Your task to perform on an android device: What's a good restaurant in Chicago? Image 0: 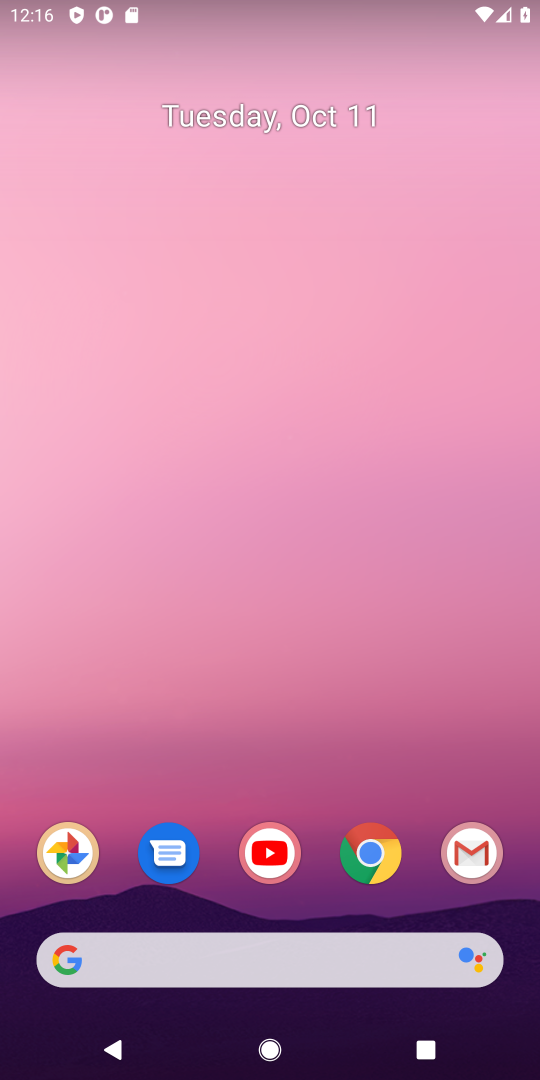
Step 0: drag from (278, 757) to (289, 35)
Your task to perform on an android device: What's a good restaurant in Chicago? Image 1: 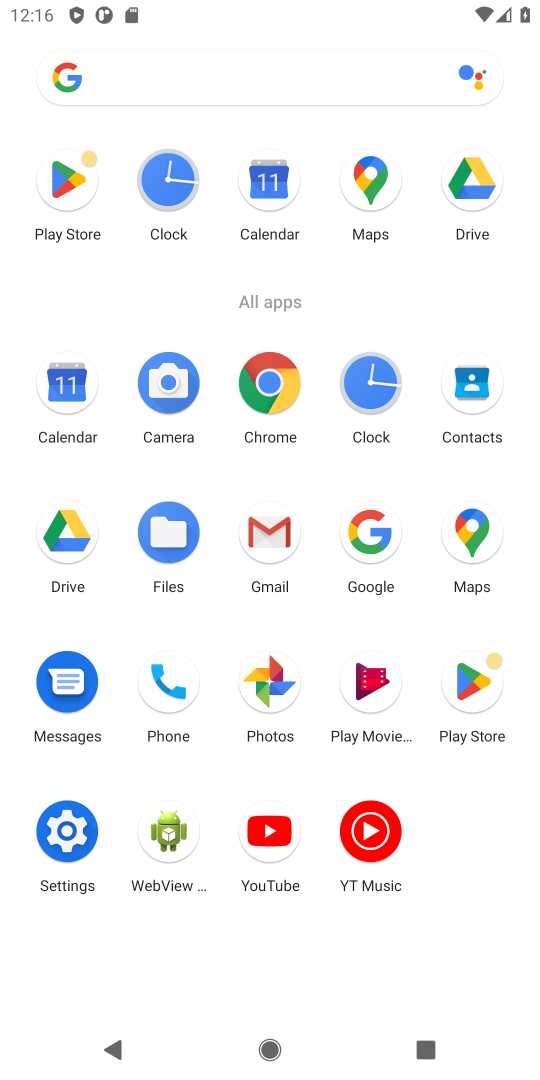
Step 1: click (261, 393)
Your task to perform on an android device: What's a good restaurant in Chicago? Image 2: 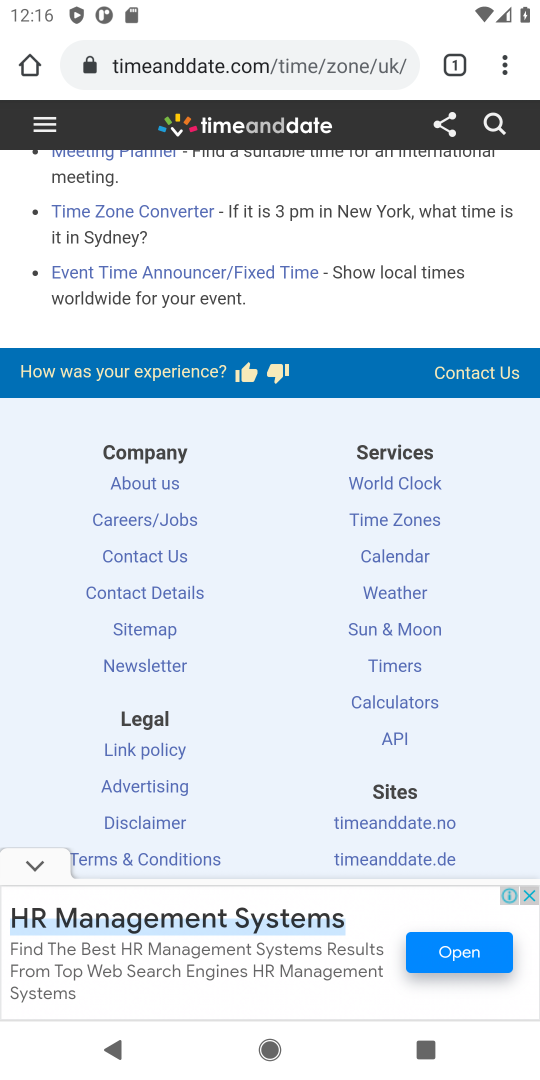
Step 2: click (252, 70)
Your task to perform on an android device: What's a good restaurant in Chicago? Image 3: 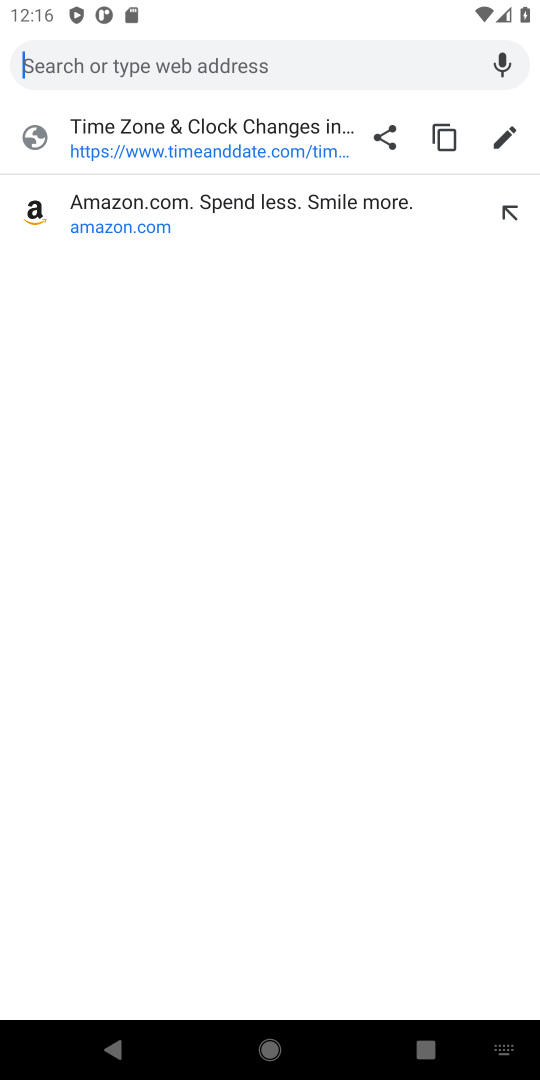
Step 3: type "What's a good restaurant in Chicago?"
Your task to perform on an android device: What's a good restaurant in Chicago? Image 4: 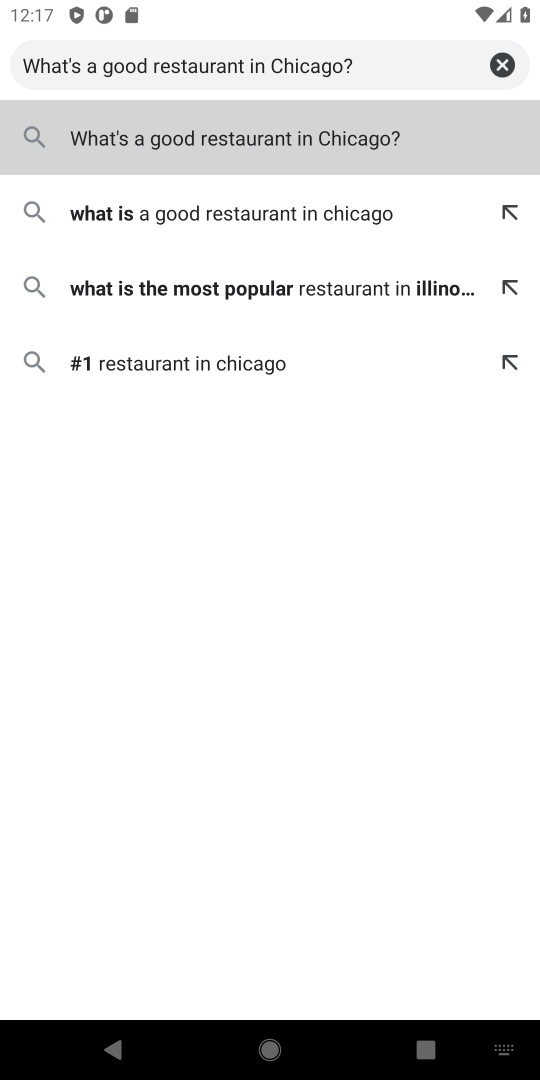
Step 4: type ""
Your task to perform on an android device: What's a good restaurant in Chicago? Image 5: 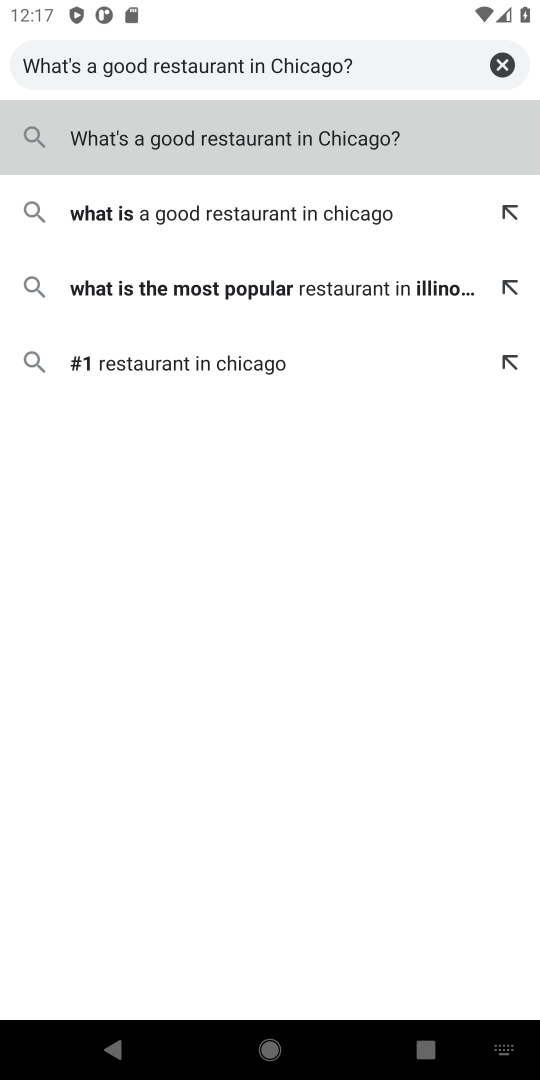
Step 5: click (235, 152)
Your task to perform on an android device: What's a good restaurant in Chicago? Image 6: 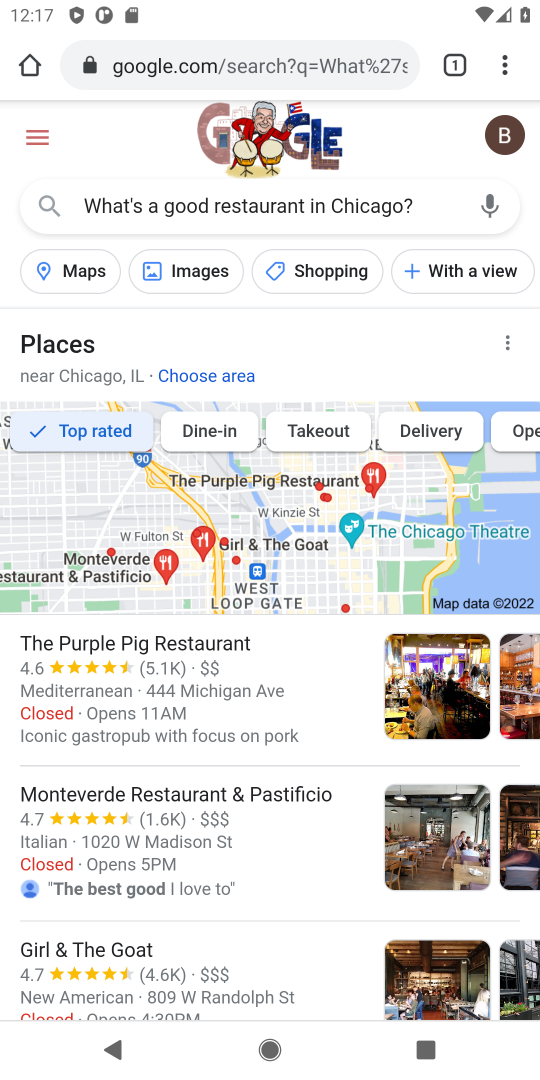
Step 6: click (156, 652)
Your task to perform on an android device: What's a good restaurant in Chicago? Image 7: 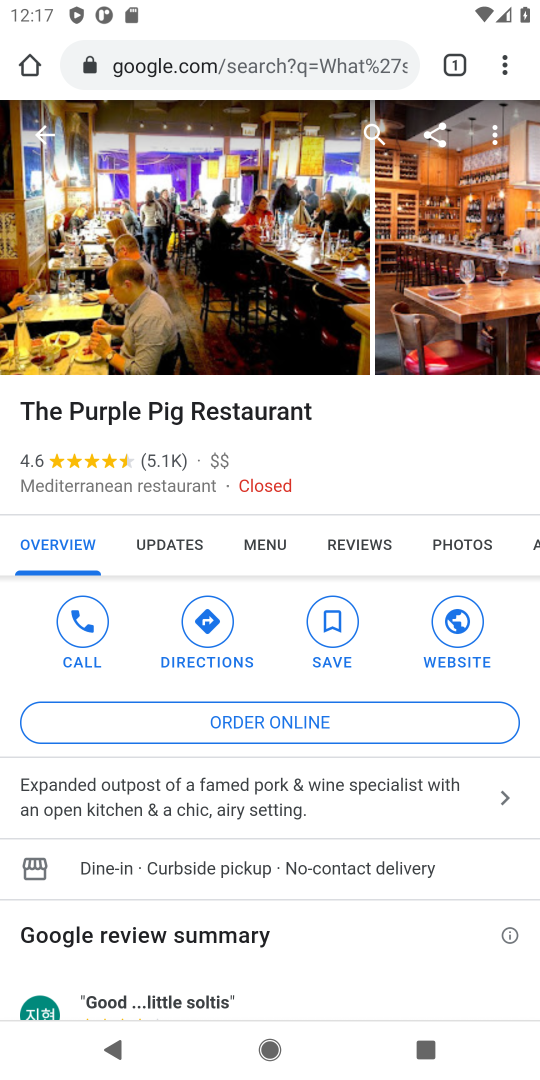
Step 7: drag from (342, 869) to (384, 904)
Your task to perform on an android device: What's a good restaurant in Chicago? Image 8: 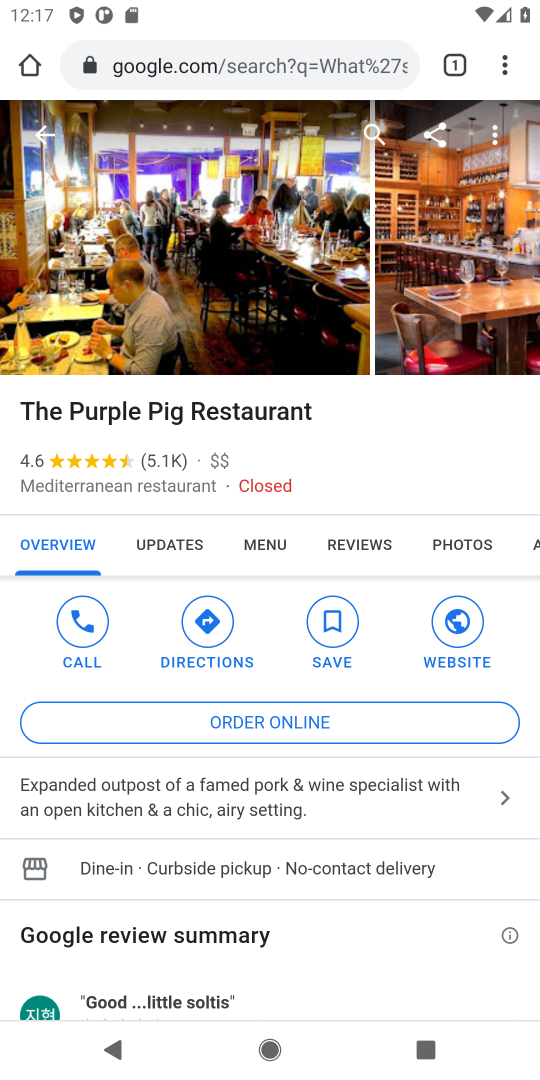
Step 8: click (295, 287)
Your task to perform on an android device: What's a good restaurant in Chicago? Image 9: 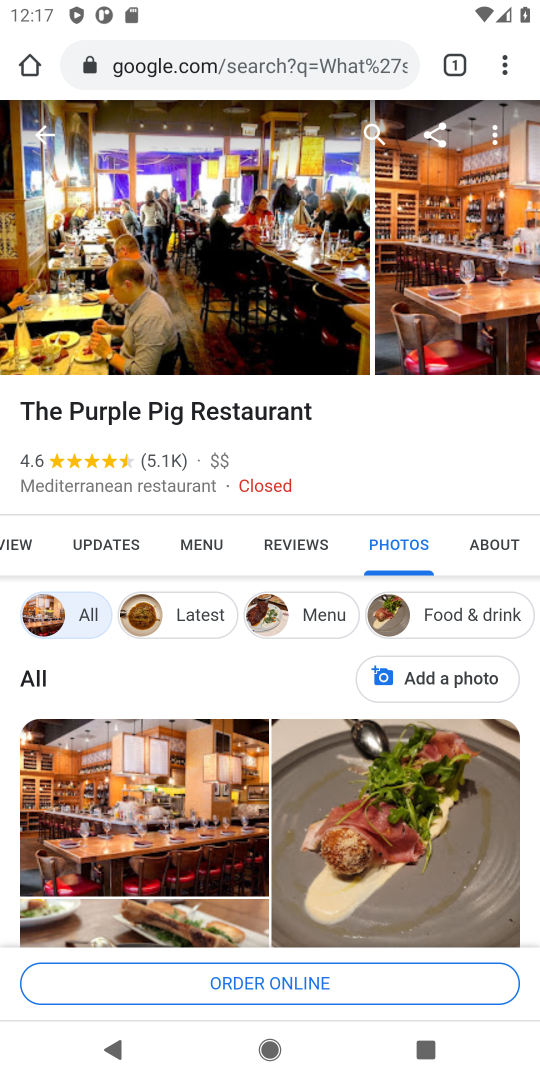
Step 9: click (175, 304)
Your task to perform on an android device: What's a good restaurant in Chicago? Image 10: 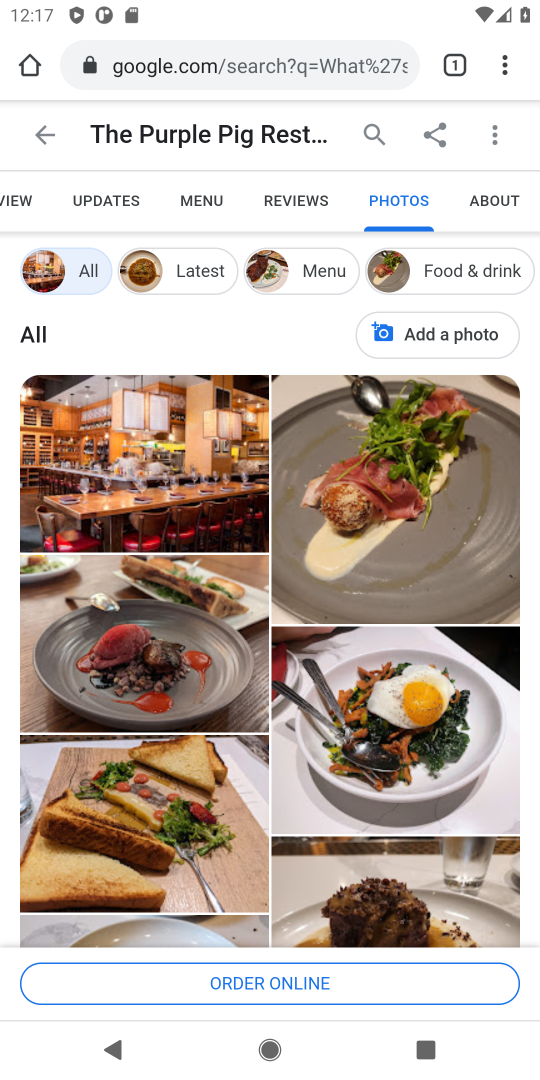
Step 10: click (181, 432)
Your task to perform on an android device: What's a good restaurant in Chicago? Image 11: 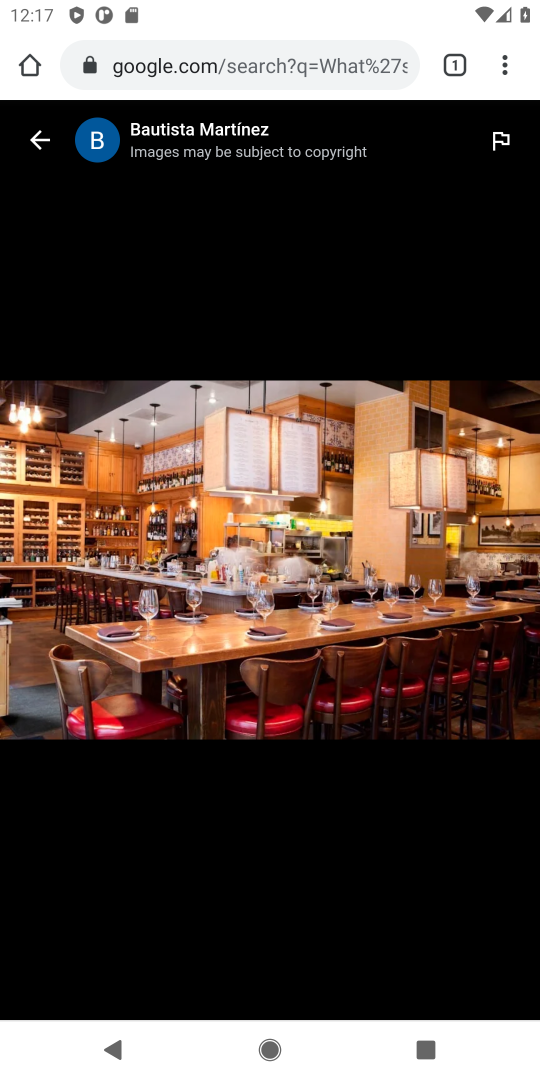
Step 11: click (207, 584)
Your task to perform on an android device: What's a good restaurant in Chicago? Image 12: 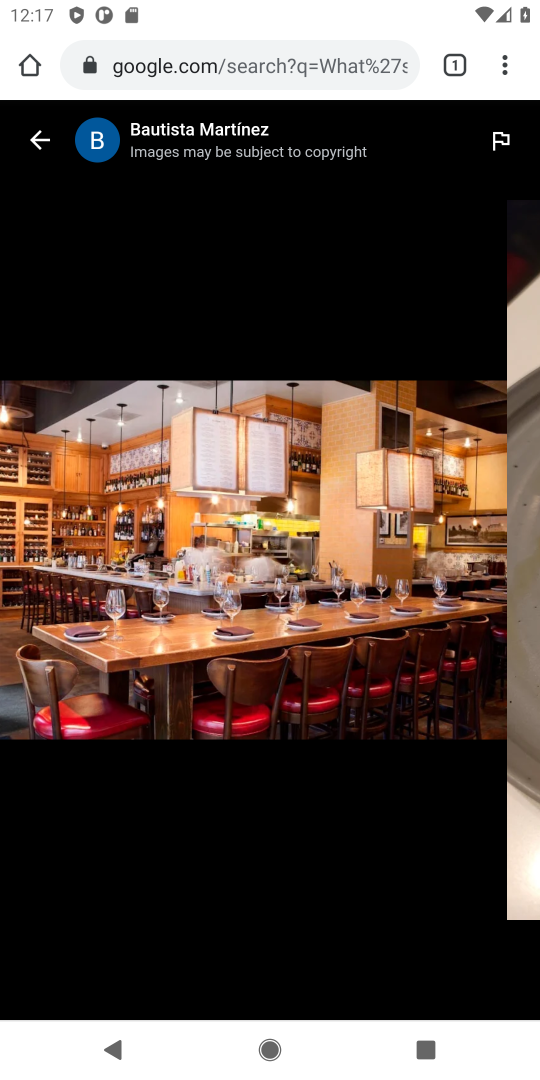
Step 12: drag from (364, 584) to (19, 583)
Your task to perform on an android device: What's a good restaurant in Chicago? Image 13: 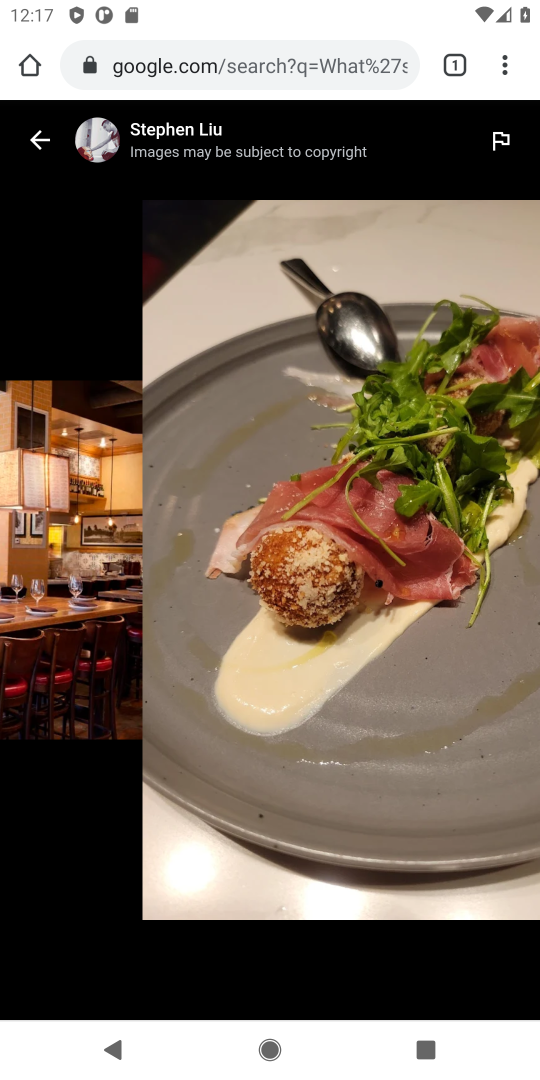
Step 13: drag from (496, 608) to (1, 640)
Your task to perform on an android device: What's a good restaurant in Chicago? Image 14: 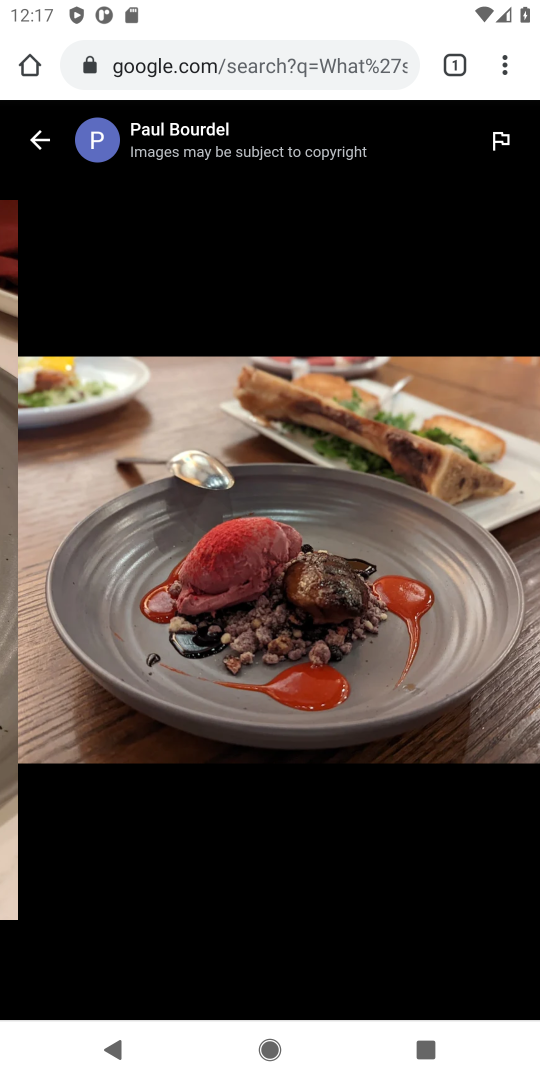
Step 14: drag from (511, 657) to (9, 651)
Your task to perform on an android device: What's a good restaurant in Chicago? Image 15: 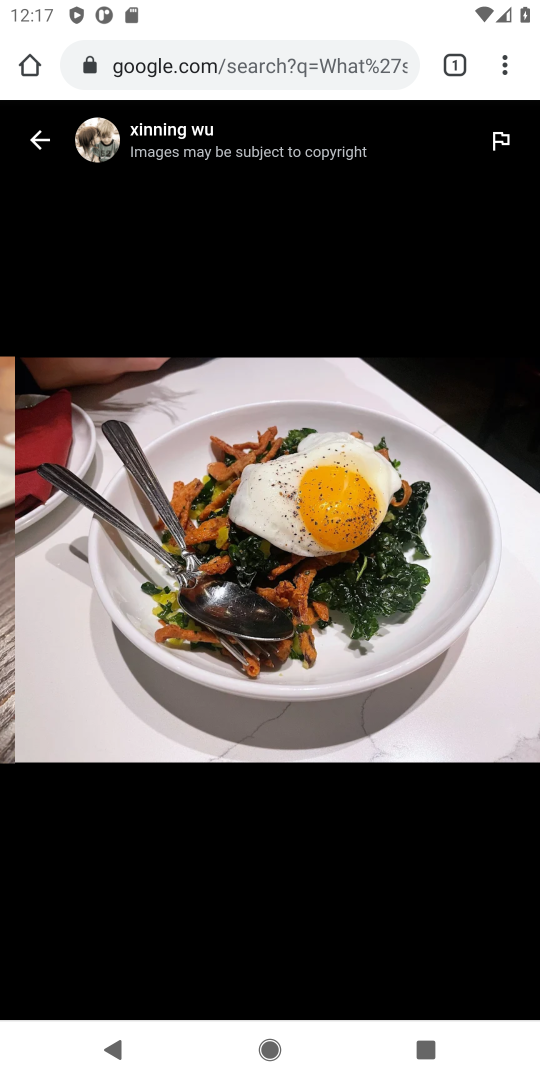
Step 15: drag from (499, 617) to (10, 637)
Your task to perform on an android device: What's a good restaurant in Chicago? Image 16: 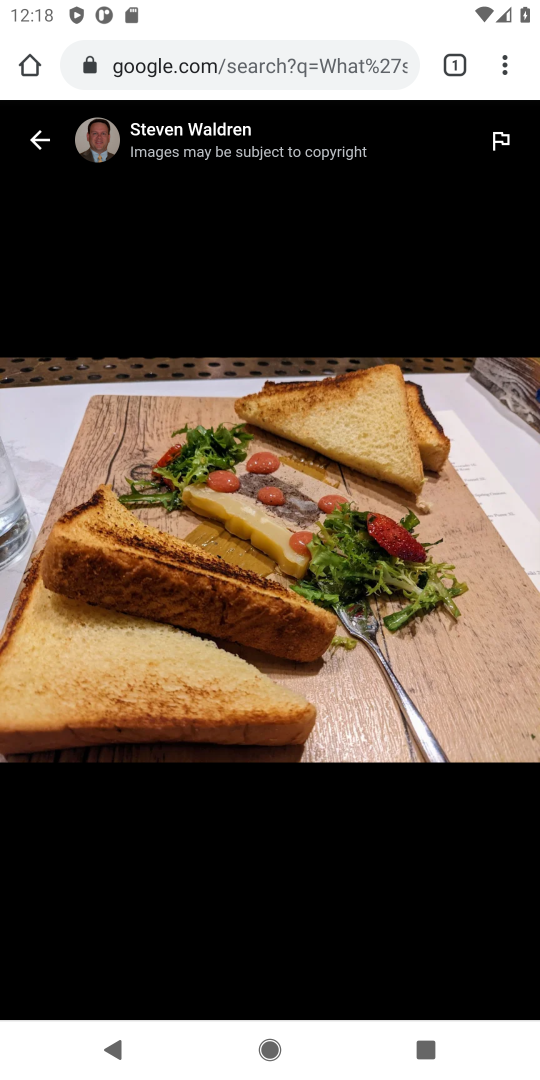
Step 16: drag from (511, 614) to (46, 623)
Your task to perform on an android device: What's a good restaurant in Chicago? Image 17: 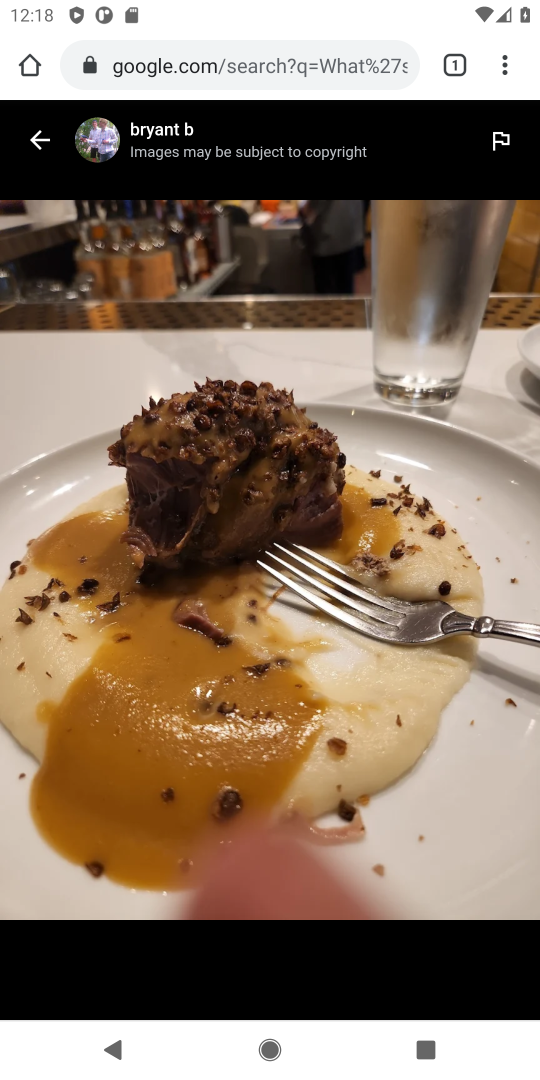
Step 17: drag from (514, 609) to (48, 604)
Your task to perform on an android device: What's a good restaurant in Chicago? Image 18: 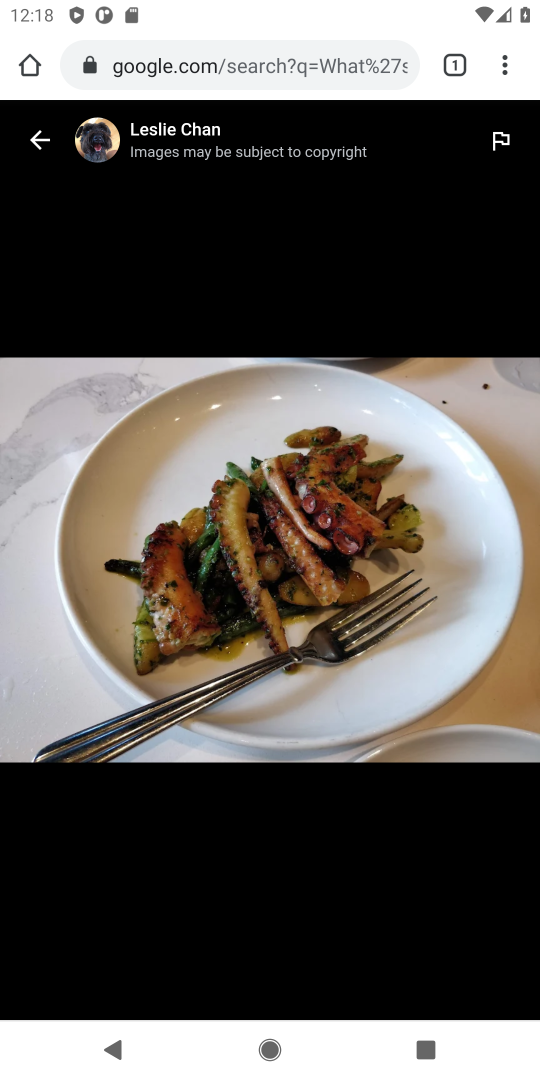
Step 18: drag from (486, 608) to (16, 464)
Your task to perform on an android device: What's a good restaurant in Chicago? Image 19: 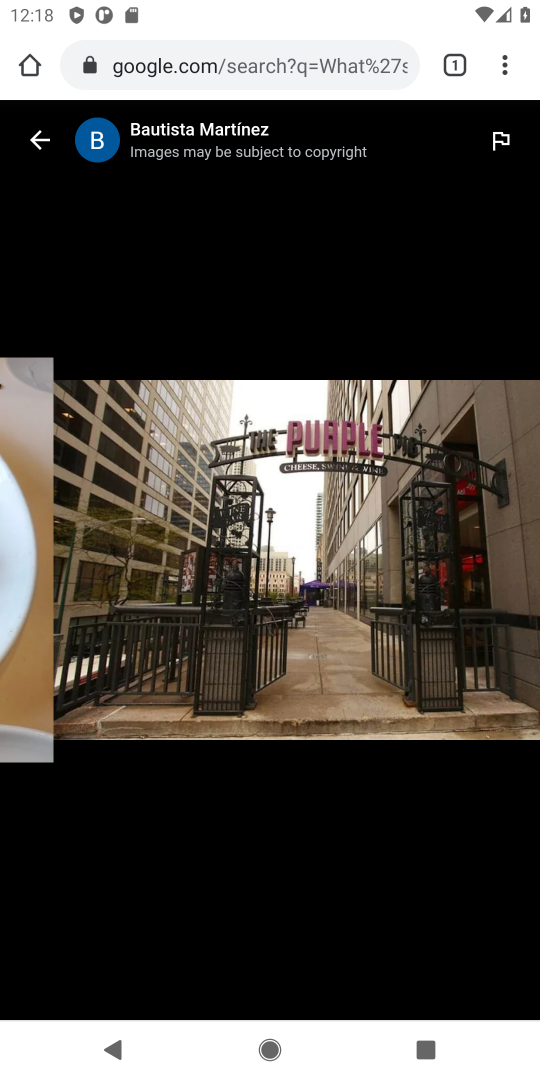
Step 19: click (41, 134)
Your task to perform on an android device: What's a good restaurant in Chicago? Image 20: 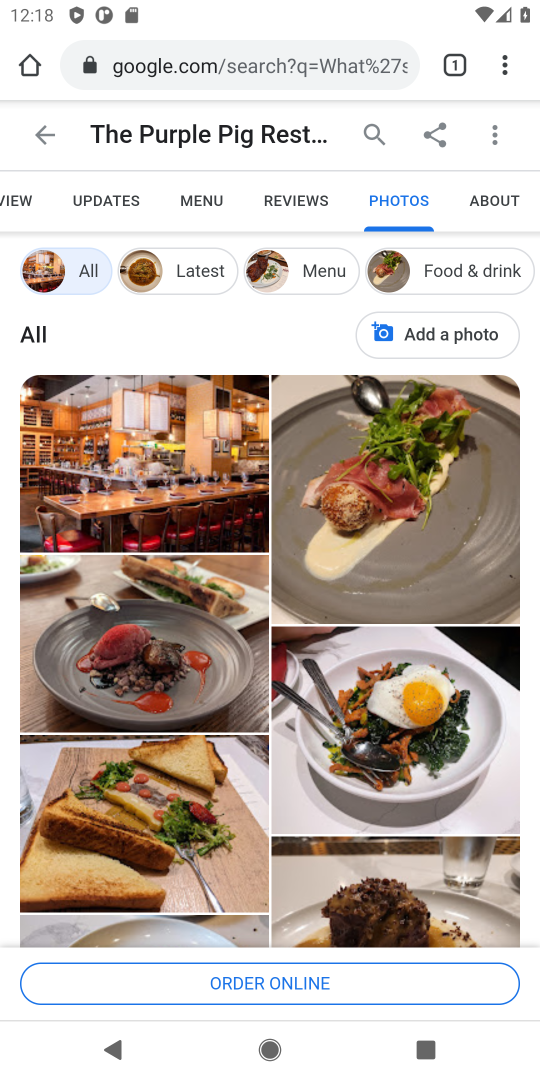
Step 20: click (38, 137)
Your task to perform on an android device: What's a good restaurant in Chicago? Image 21: 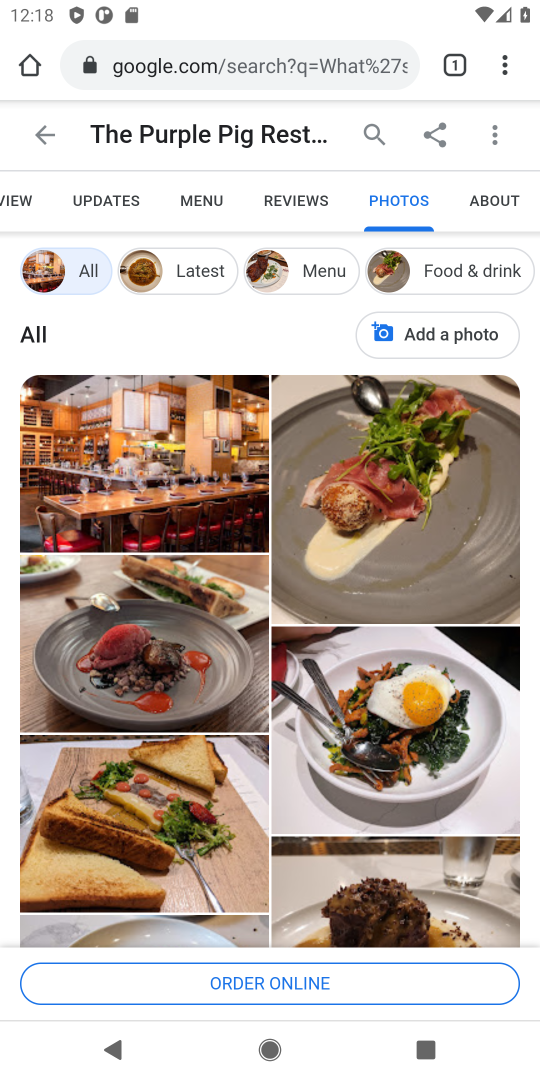
Step 21: click (56, 139)
Your task to perform on an android device: What's a good restaurant in Chicago? Image 22: 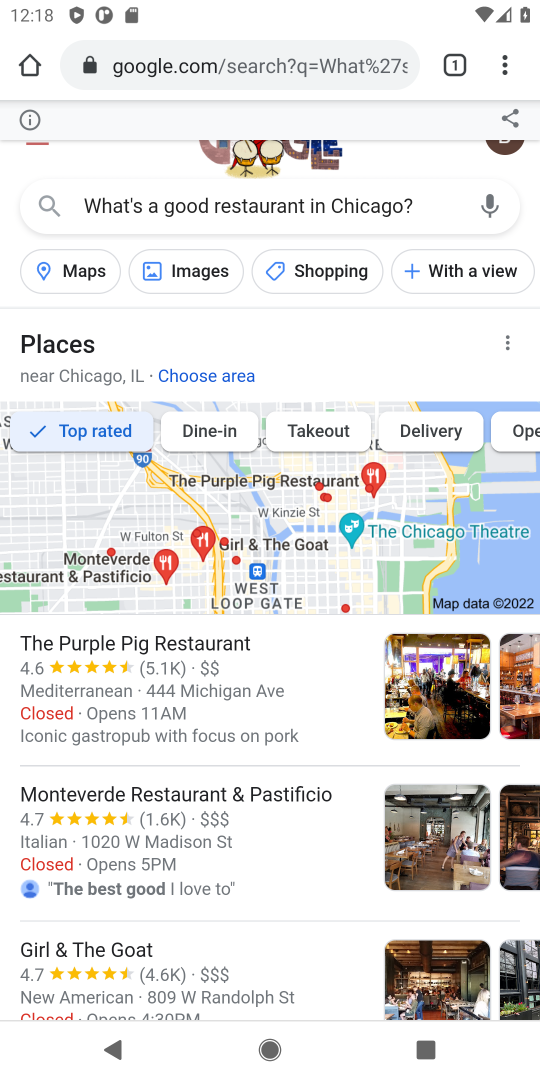
Step 22: drag from (206, 791) to (237, 175)
Your task to perform on an android device: What's a good restaurant in Chicago? Image 23: 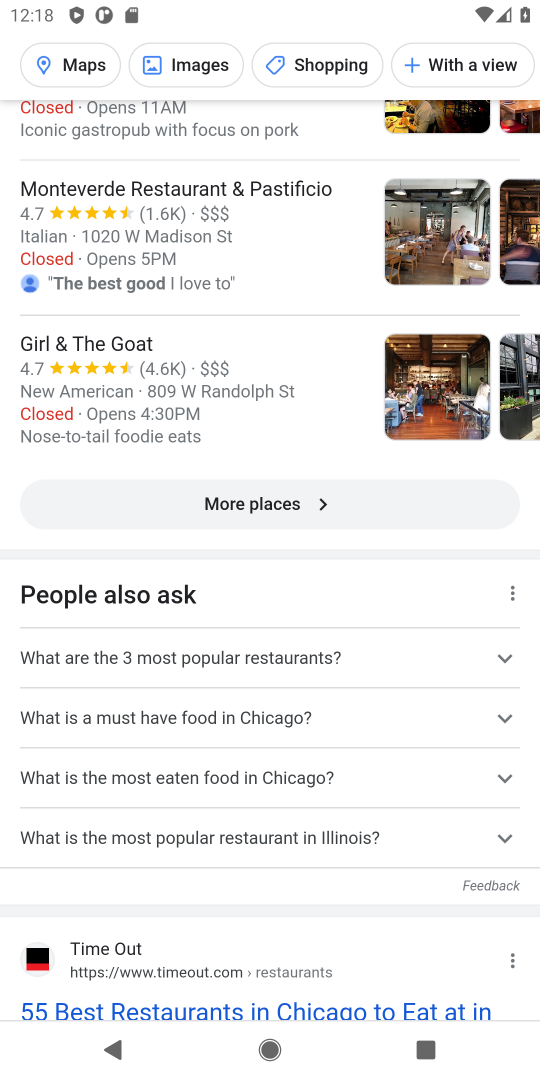
Step 23: click (136, 354)
Your task to perform on an android device: What's a good restaurant in Chicago? Image 24: 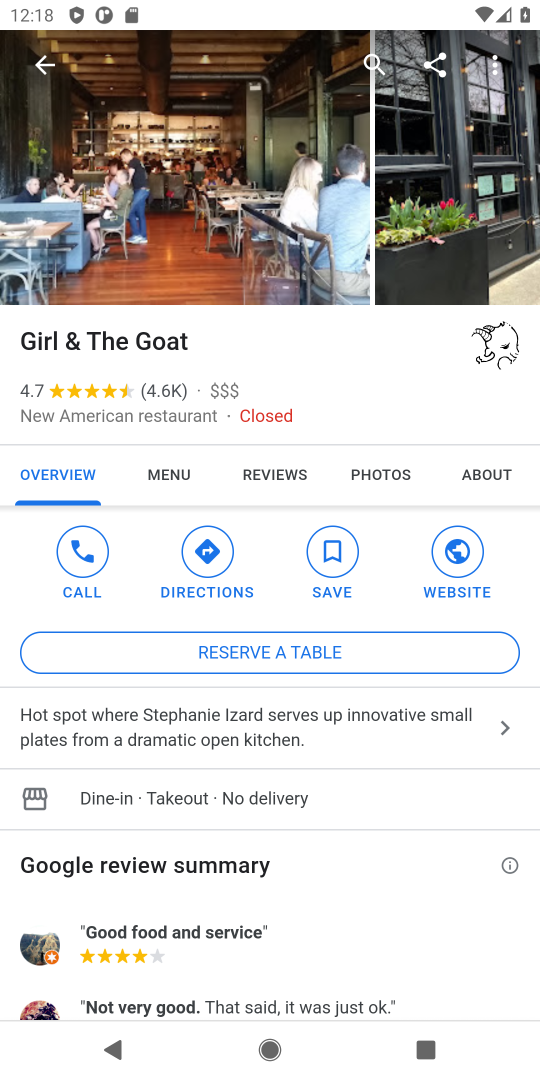
Step 24: drag from (274, 831) to (252, 371)
Your task to perform on an android device: What's a good restaurant in Chicago? Image 25: 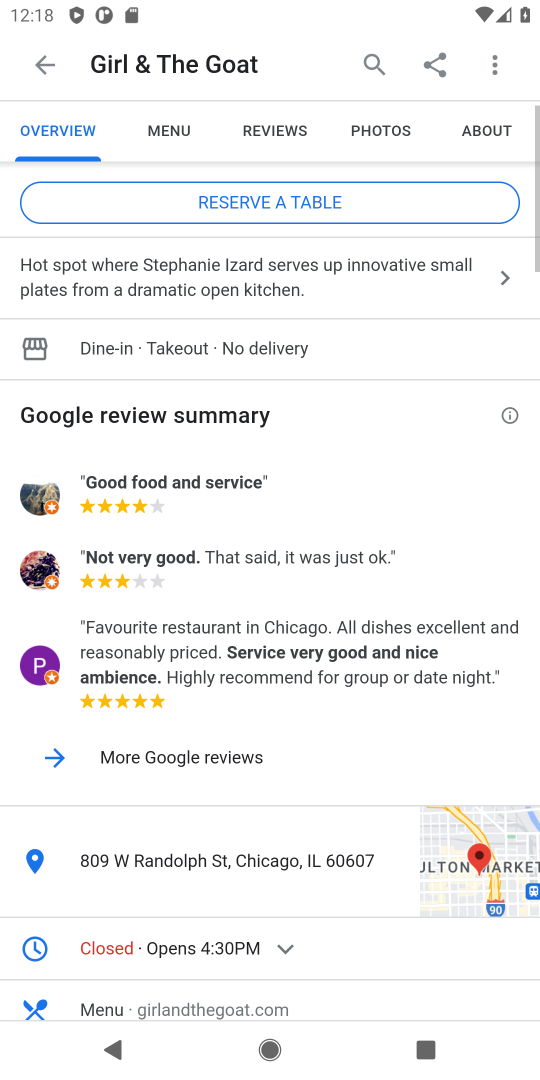
Step 25: drag from (295, 803) to (288, 271)
Your task to perform on an android device: What's a good restaurant in Chicago? Image 26: 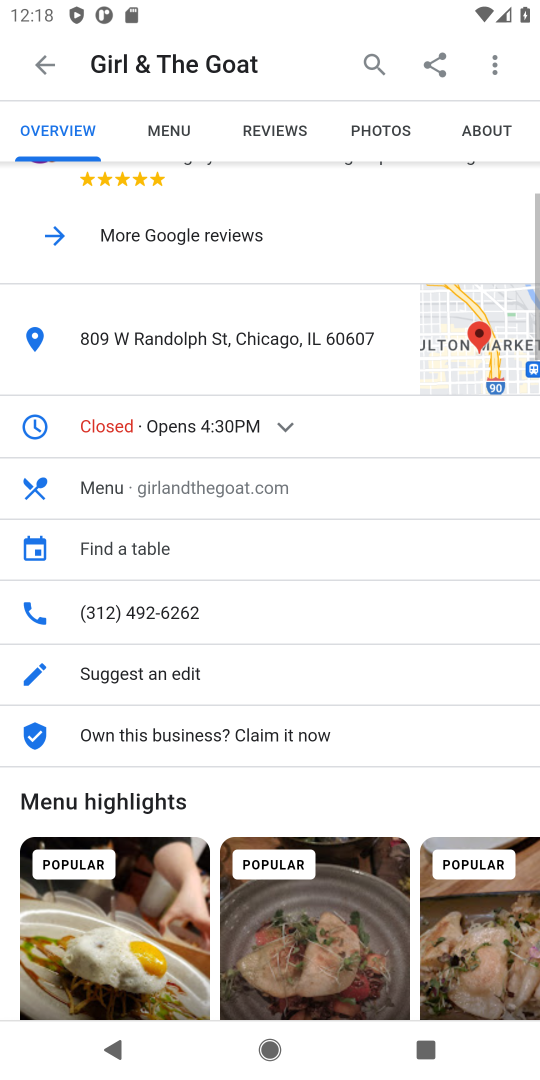
Step 26: drag from (343, 815) to (333, 364)
Your task to perform on an android device: What's a good restaurant in Chicago? Image 27: 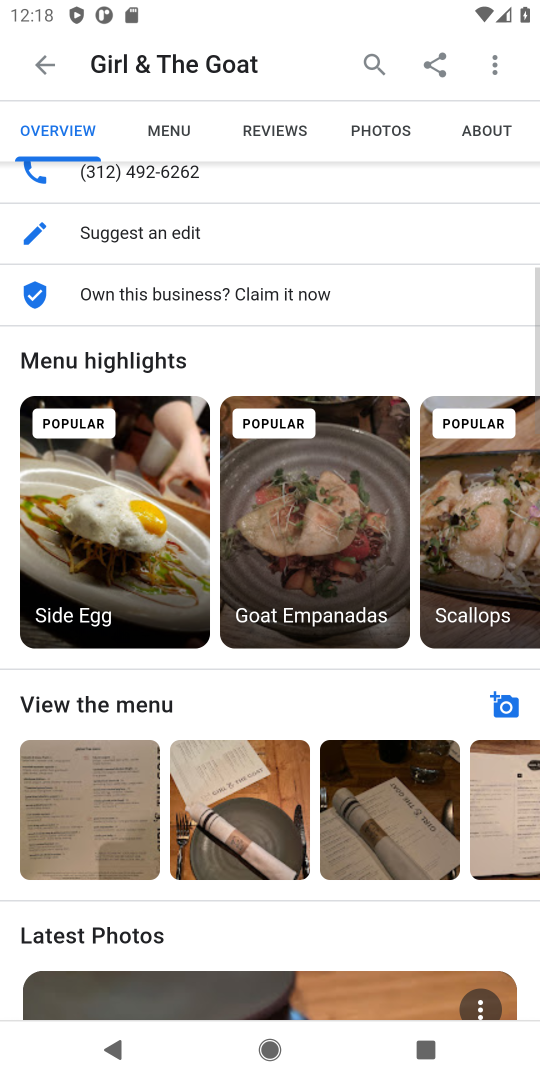
Step 27: drag from (390, 698) to (345, 239)
Your task to perform on an android device: What's a good restaurant in Chicago? Image 28: 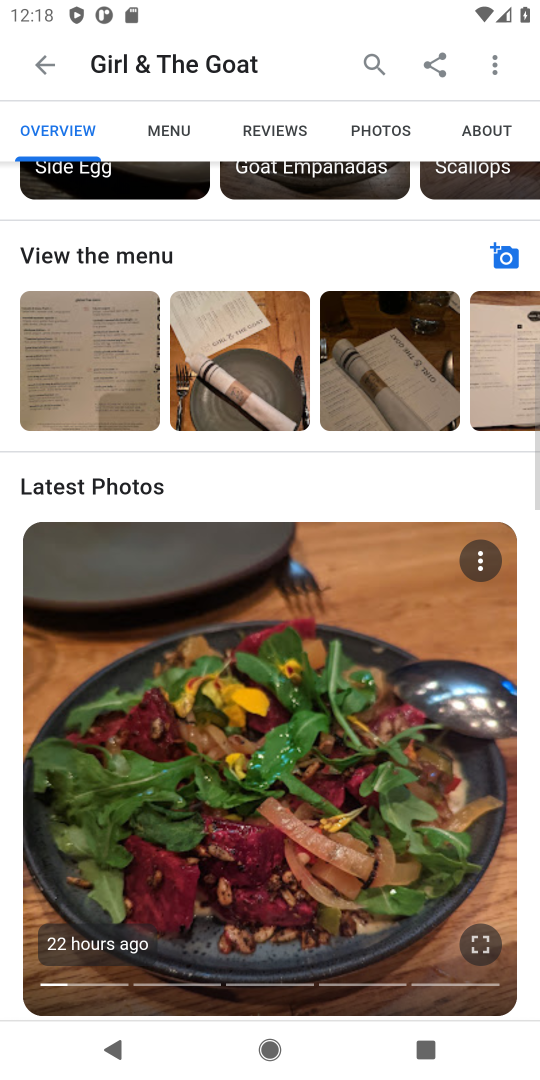
Step 28: drag from (367, 479) to (355, 124)
Your task to perform on an android device: What's a good restaurant in Chicago? Image 29: 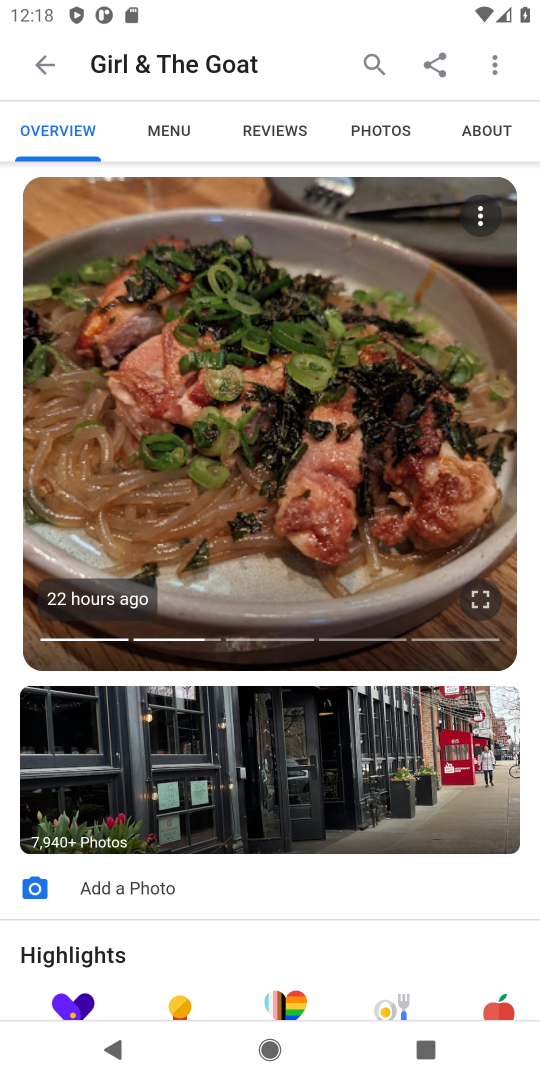
Step 29: drag from (387, 456) to (189, 484)
Your task to perform on an android device: What's a good restaurant in Chicago? Image 30: 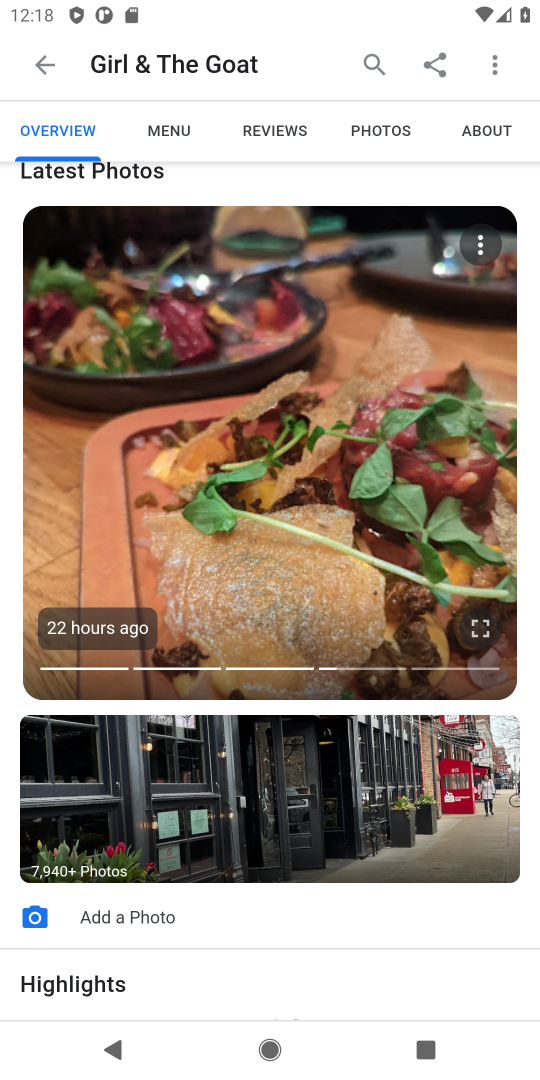
Step 30: drag from (381, 503) to (116, 485)
Your task to perform on an android device: What's a good restaurant in Chicago? Image 31: 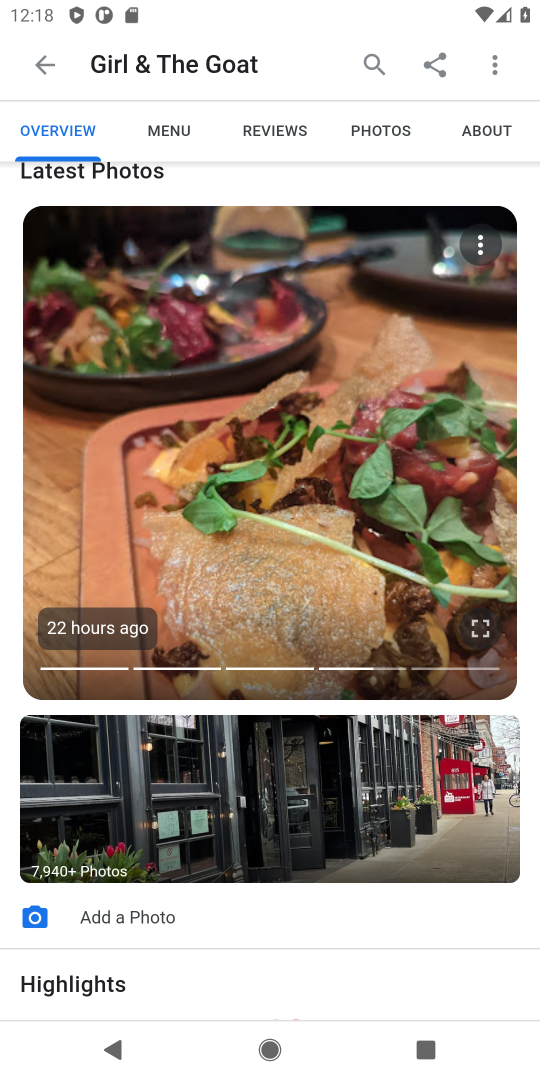
Step 31: drag from (370, 520) to (263, 554)
Your task to perform on an android device: What's a good restaurant in Chicago? Image 32: 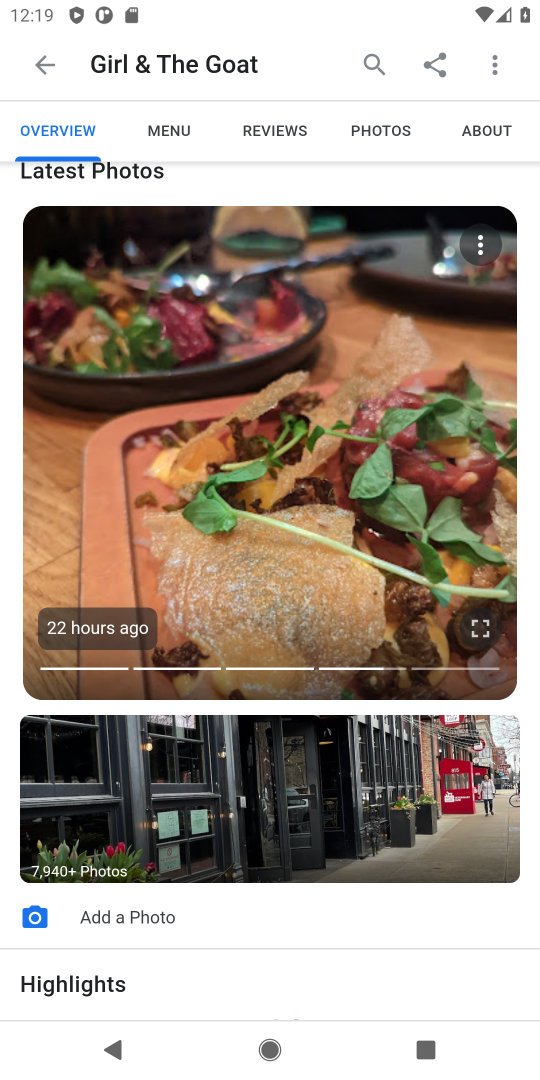
Step 32: click (189, 553)
Your task to perform on an android device: What's a good restaurant in Chicago? Image 33: 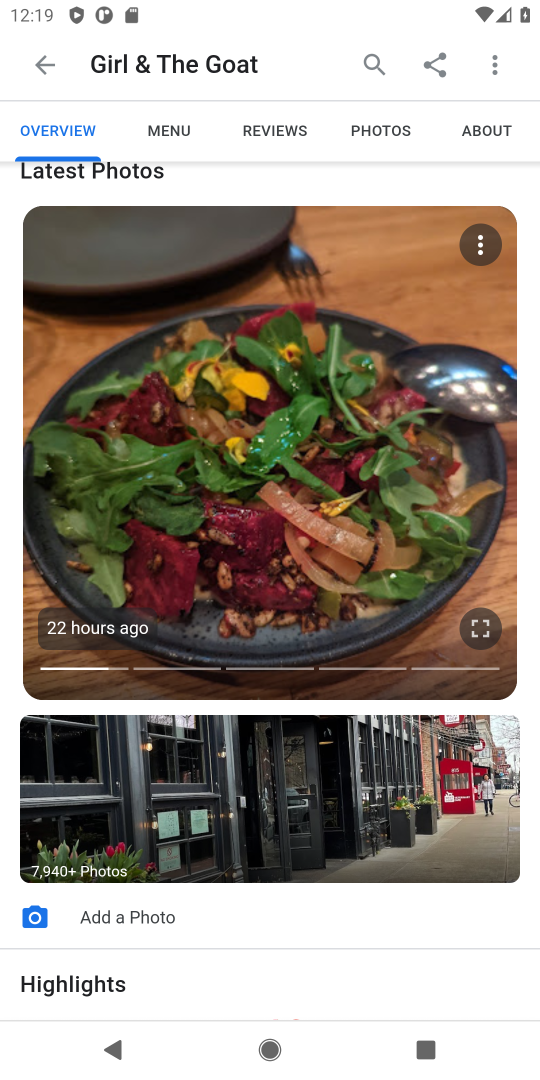
Step 33: drag from (301, 856) to (282, 346)
Your task to perform on an android device: What's a good restaurant in Chicago? Image 34: 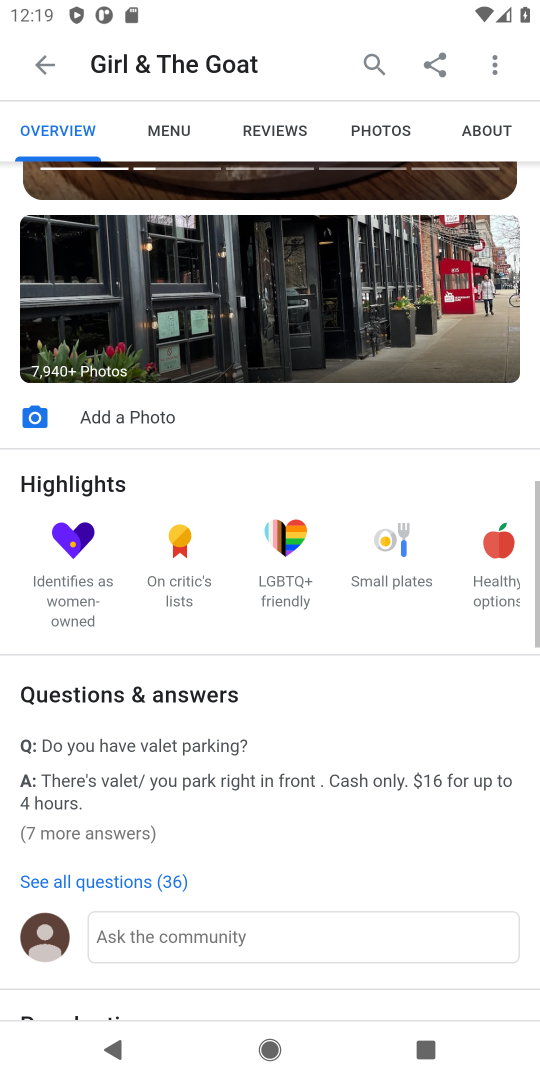
Step 34: drag from (339, 726) to (320, 202)
Your task to perform on an android device: What's a good restaurant in Chicago? Image 35: 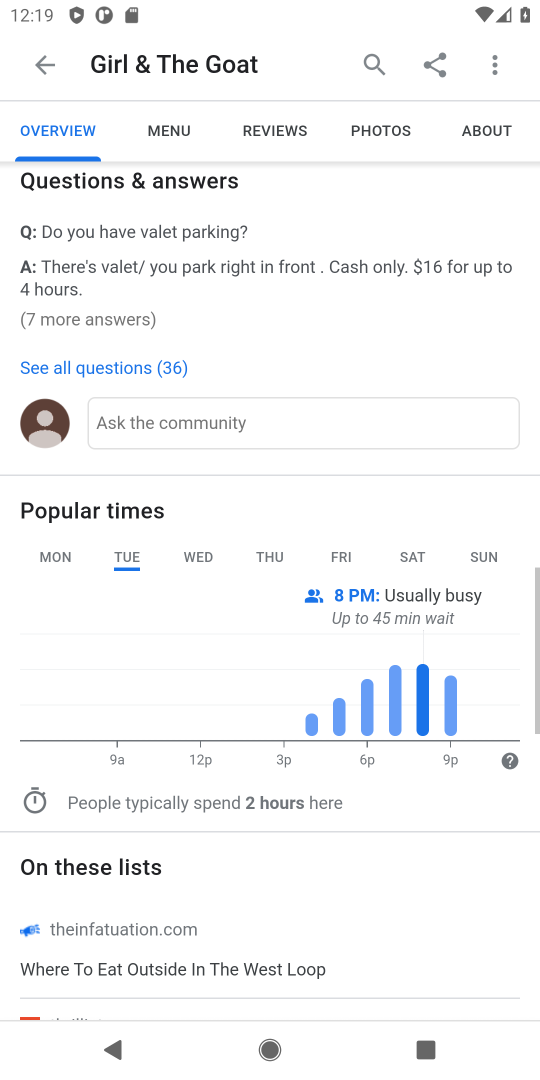
Step 35: drag from (363, 743) to (305, 301)
Your task to perform on an android device: What's a good restaurant in Chicago? Image 36: 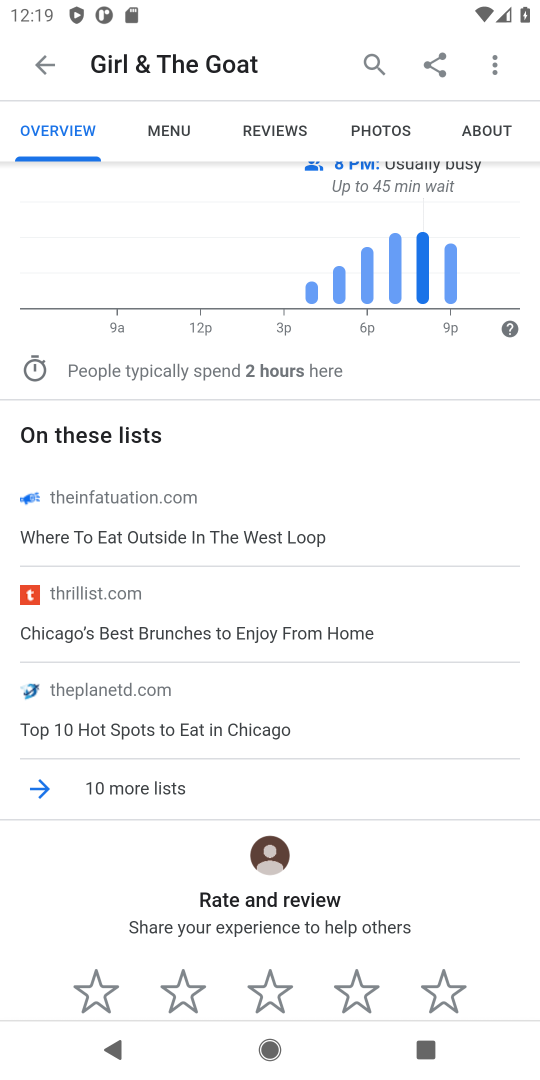
Step 36: drag from (262, 686) to (251, 326)
Your task to perform on an android device: What's a good restaurant in Chicago? Image 37: 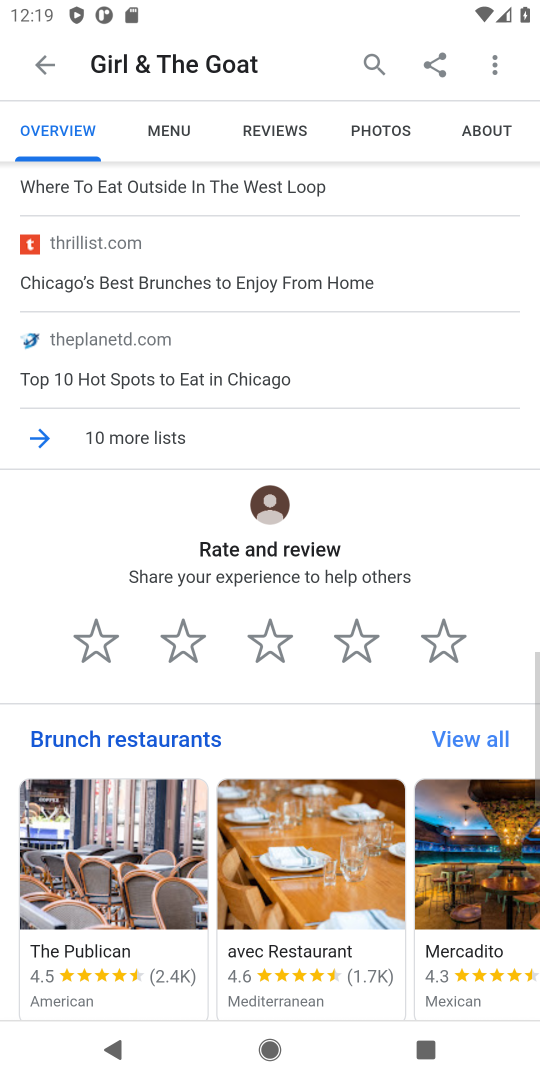
Step 37: drag from (321, 732) to (293, 277)
Your task to perform on an android device: What's a good restaurant in Chicago? Image 38: 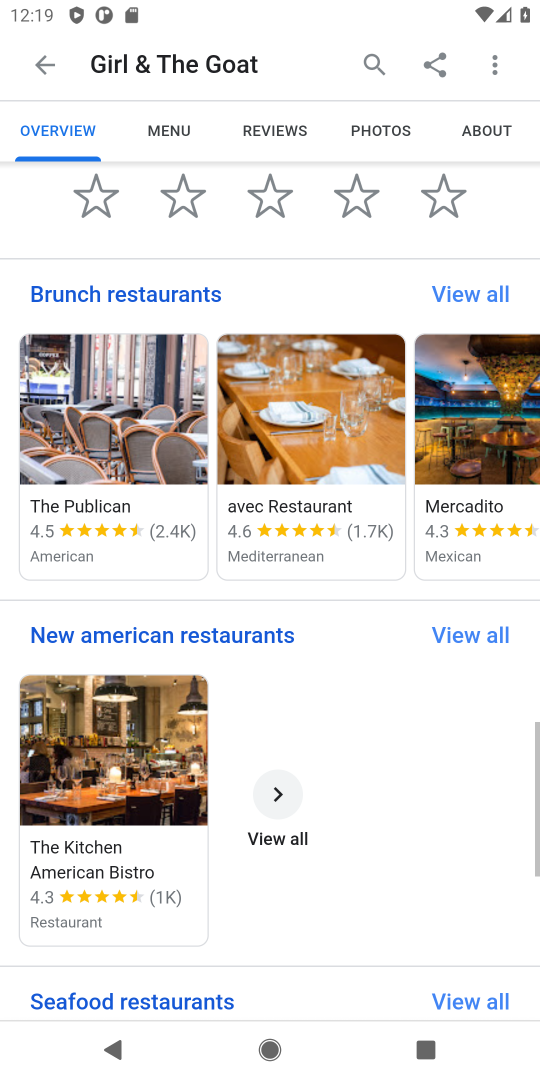
Step 38: drag from (232, 833) to (258, 305)
Your task to perform on an android device: What's a good restaurant in Chicago? Image 39: 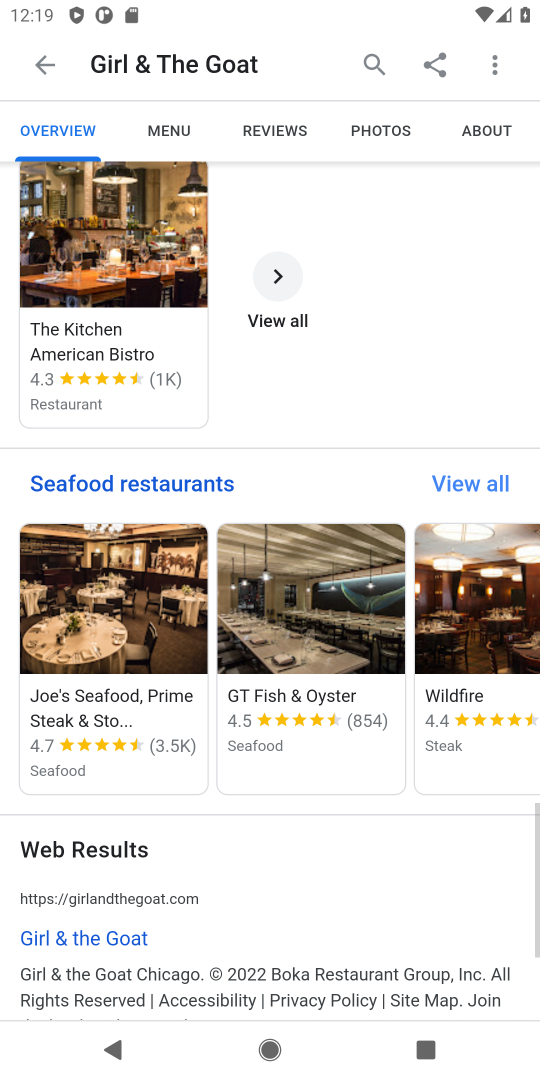
Step 39: drag from (344, 743) to (319, 248)
Your task to perform on an android device: What's a good restaurant in Chicago? Image 40: 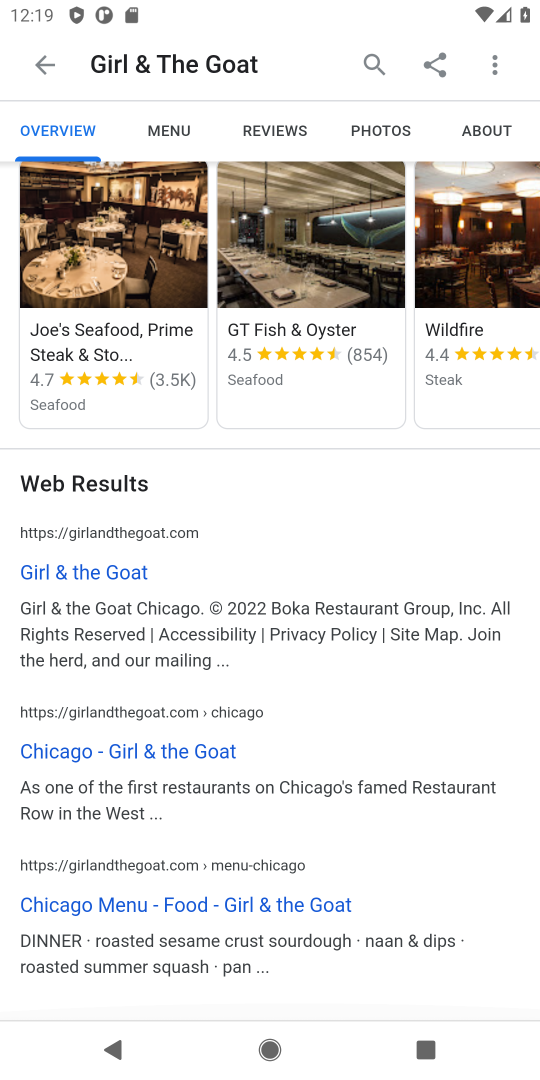
Step 40: drag from (281, 744) to (238, 895)
Your task to perform on an android device: What's a good restaurant in Chicago? Image 41: 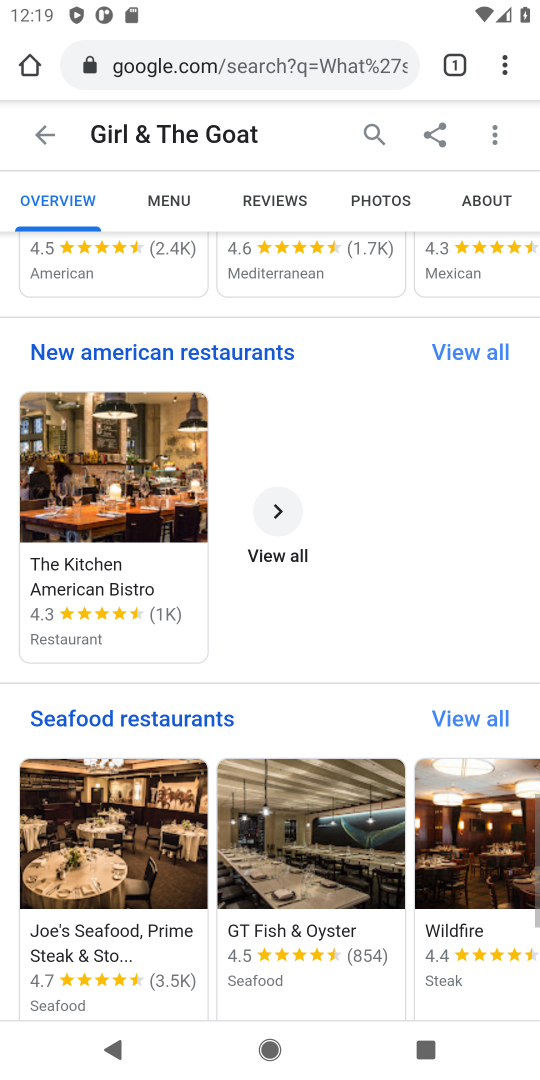
Step 41: drag from (259, 520) to (244, 829)
Your task to perform on an android device: What's a good restaurant in Chicago? Image 42: 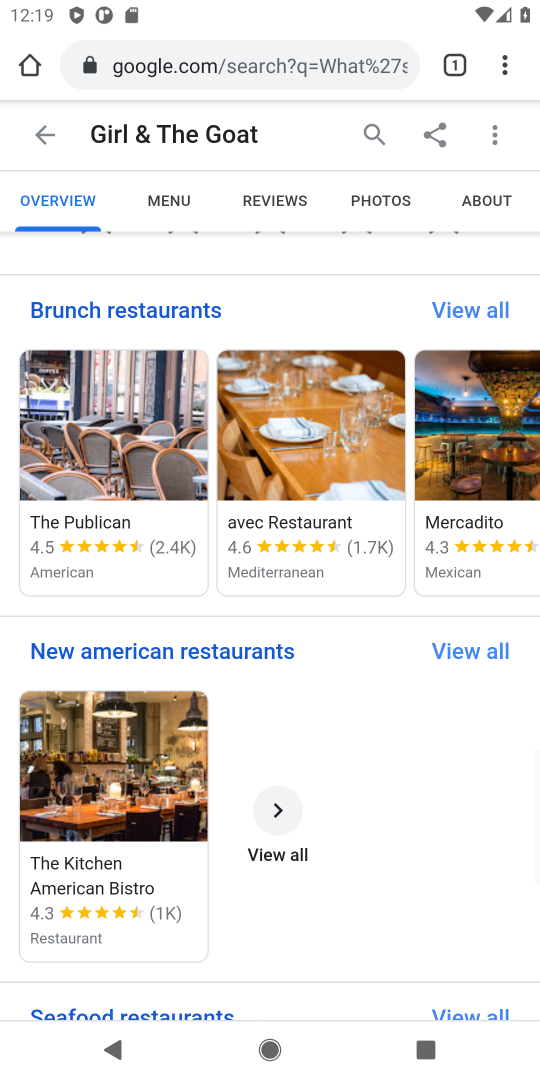
Step 42: press back button
Your task to perform on an android device: What's a good restaurant in Chicago? Image 43: 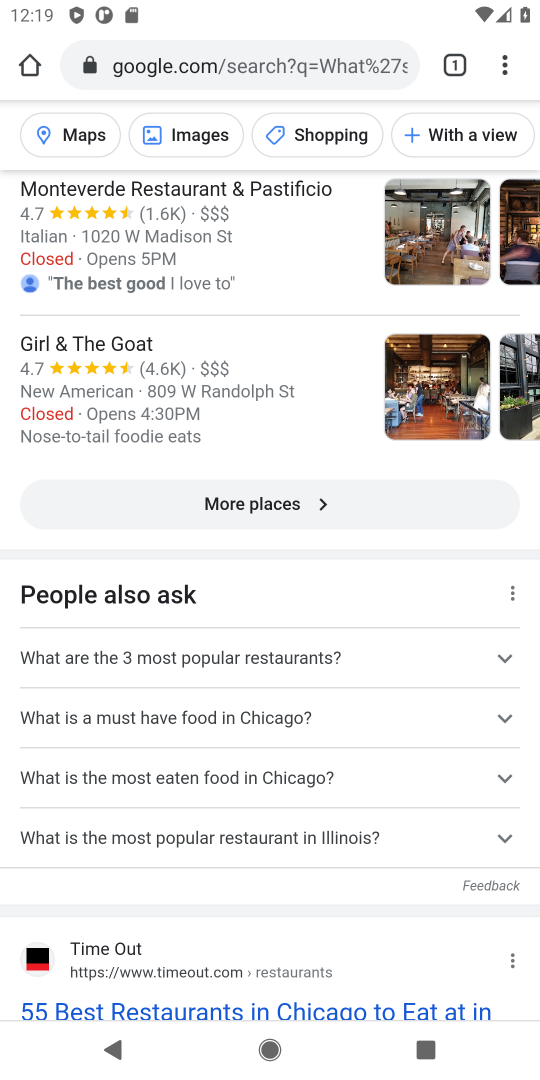
Step 43: click (172, 1011)
Your task to perform on an android device: What's a good restaurant in Chicago? Image 44: 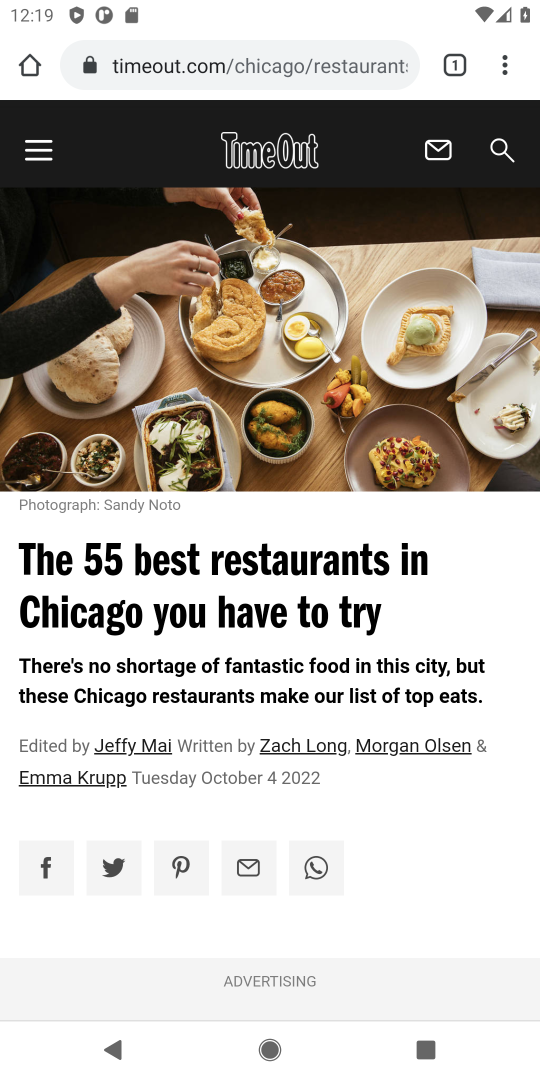
Step 44: drag from (202, 852) to (270, 324)
Your task to perform on an android device: What's a good restaurant in Chicago? Image 45: 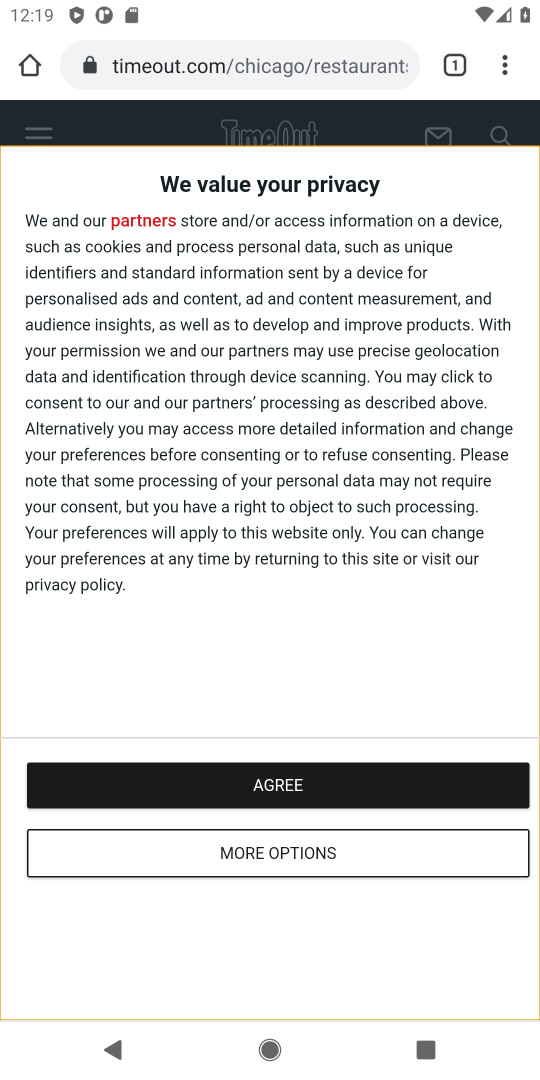
Step 45: click (267, 793)
Your task to perform on an android device: What's a good restaurant in Chicago? Image 46: 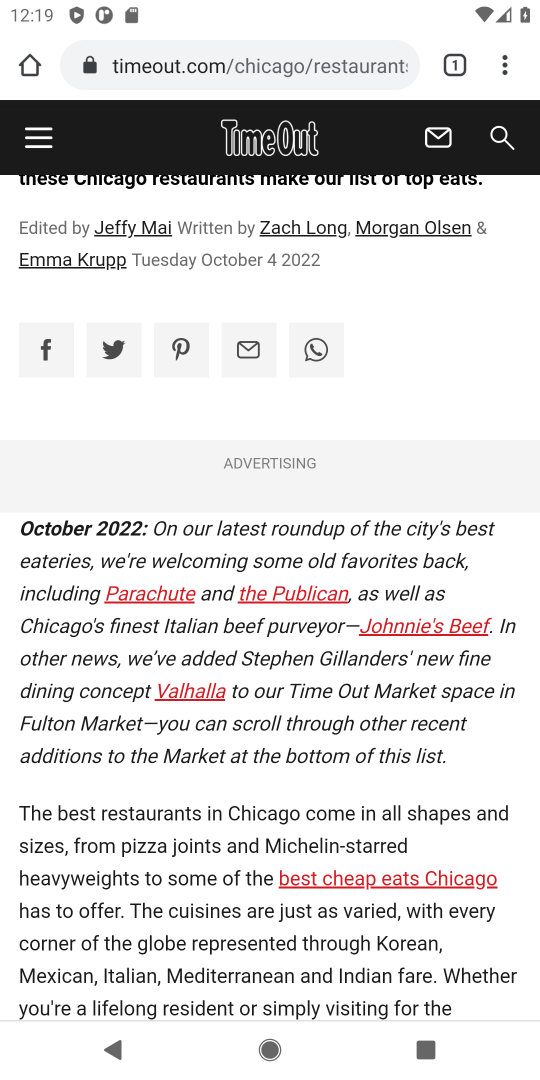
Step 46: task complete